Your task to perform on an android device: turn off javascript in the chrome app Image 0: 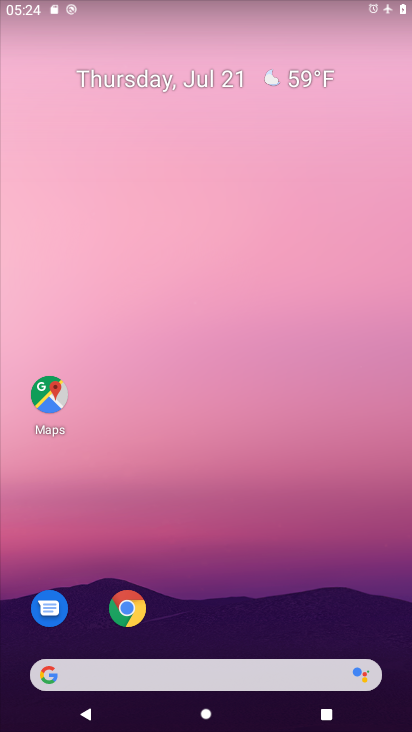
Step 0: drag from (313, 683) to (354, 33)
Your task to perform on an android device: turn off javascript in the chrome app Image 1: 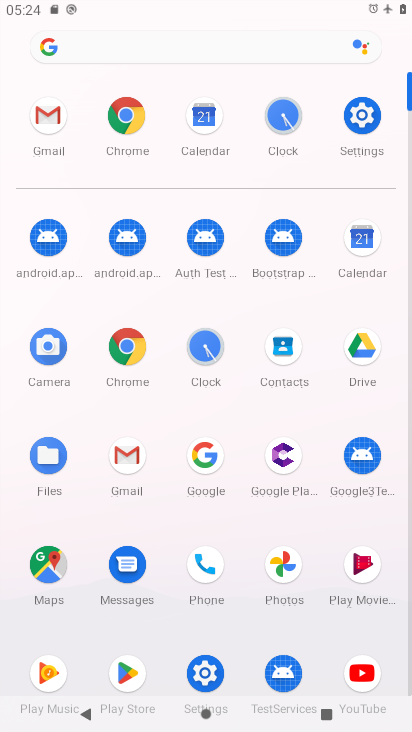
Step 1: click (141, 350)
Your task to perform on an android device: turn off javascript in the chrome app Image 2: 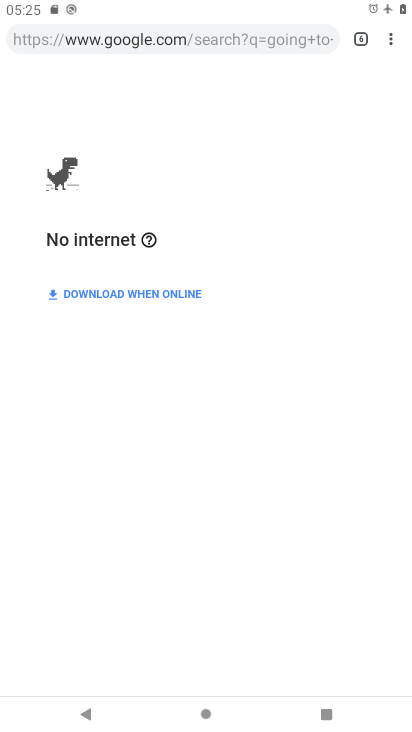
Step 2: drag from (384, 31) to (300, 455)
Your task to perform on an android device: turn off javascript in the chrome app Image 3: 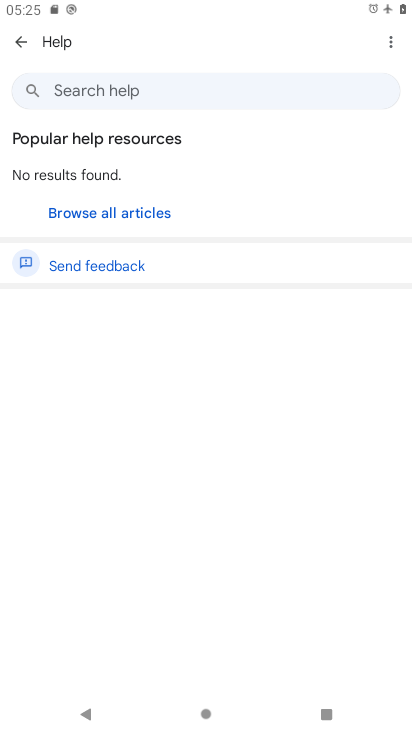
Step 3: press back button
Your task to perform on an android device: turn off javascript in the chrome app Image 4: 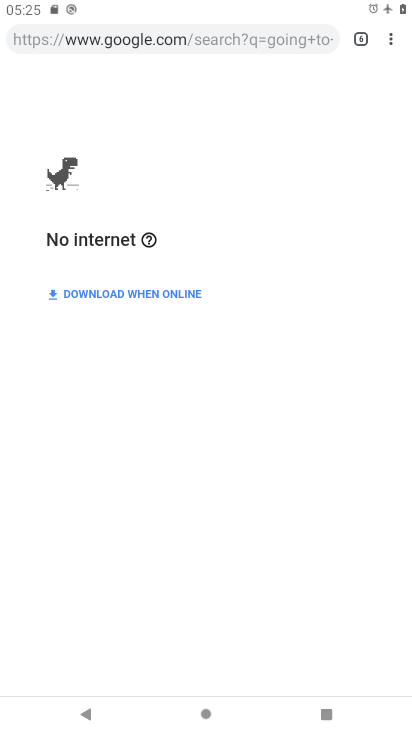
Step 4: drag from (391, 35) to (275, 435)
Your task to perform on an android device: turn off javascript in the chrome app Image 5: 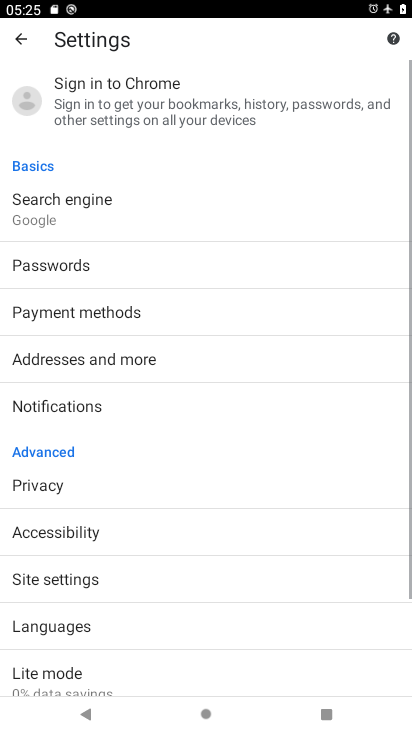
Step 5: click (164, 598)
Your task to perform on an android device: turn off javascript in the chrome app Image 6: 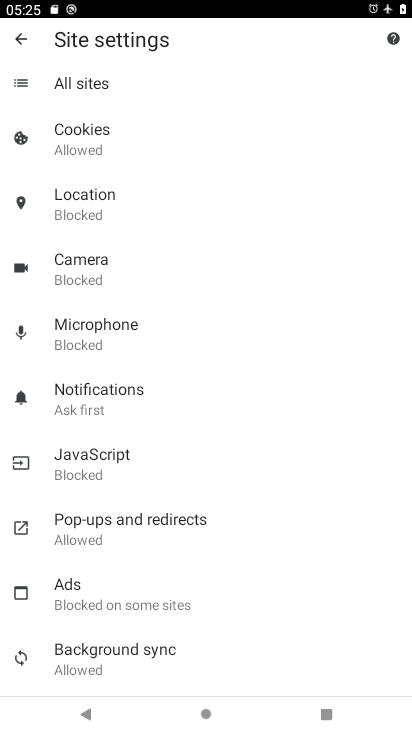
Step 6: click (134, 472)
Your task to perform on an android device: turn off javascript in the chrome app Image 7: 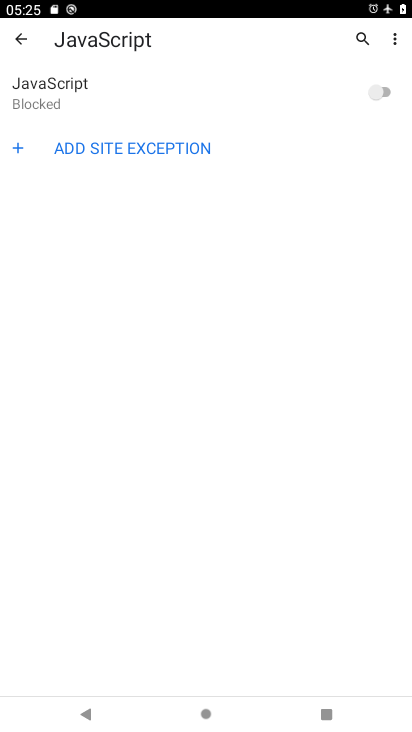
Step 7: task complete